Your task to perform on an android device: Open notification settings Image 0: 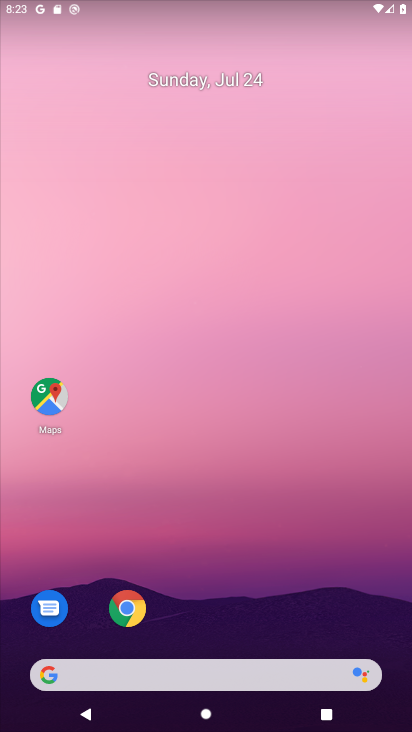
Step 0: drag from (189, 616) to (182, 223)
Your task to perform on an android device: Open notification settings Image 1: 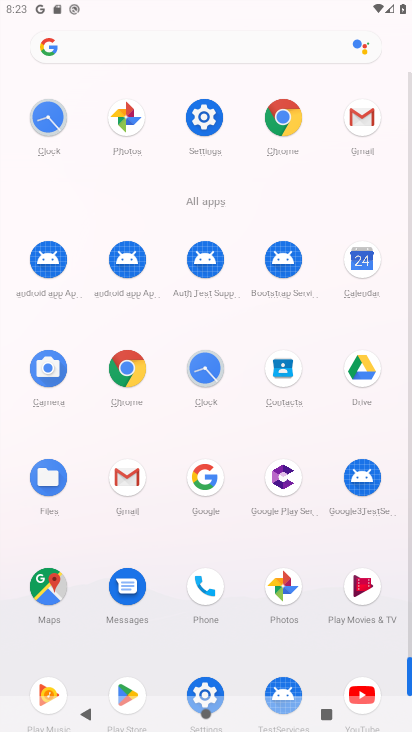
Step 1: click (210, 133)
Your task to perform on an android device: Open notification settings Image 2: 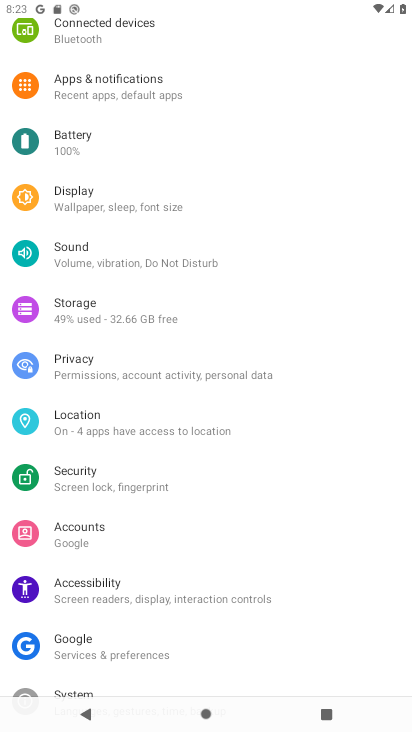
Step 2: click (175, 99)
Your task to perform on an android device: Open notification settings Image 3: 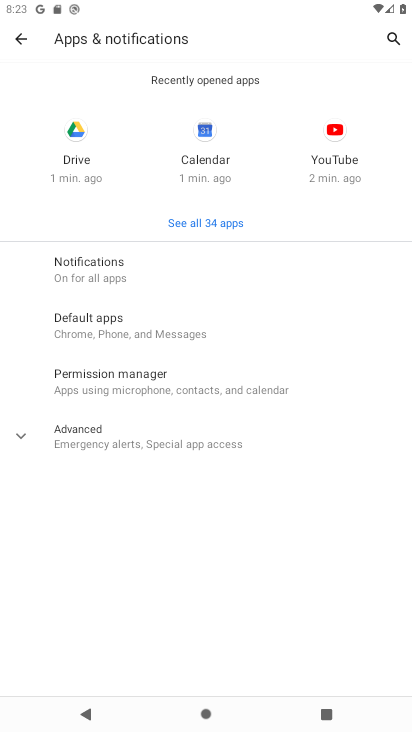
Step 3: task complete